Your task to perform on an android device: Open network settings Image 0: 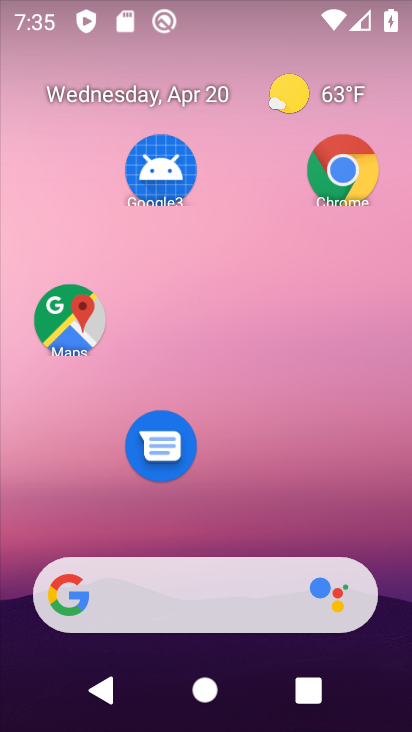
Step 0: drag from (247, 503) to (212, 49)
Your task to perform on an android device: Open network settings Image 1: 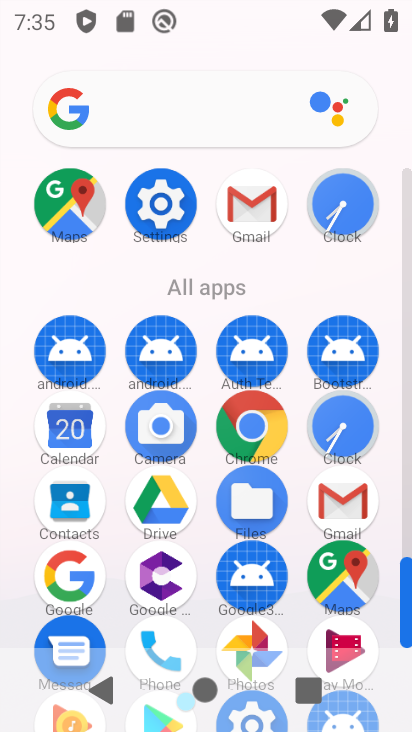
Step 1: click (158, 213)
Your task to perform on an android device: Open network settings Image 2: 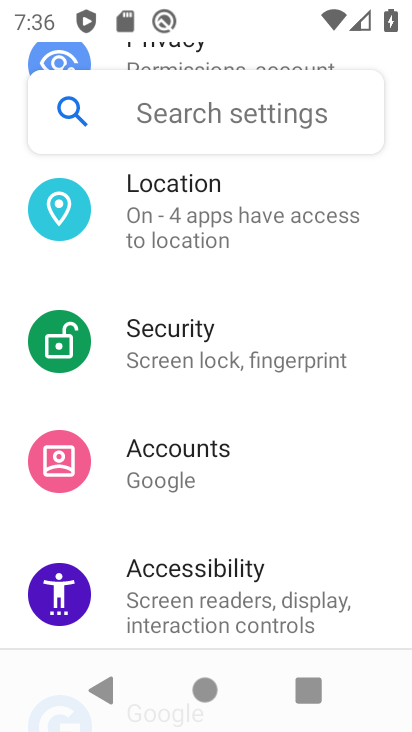
Step 2: drag from (257, 266) to (351, 730)
Your task to perform on an android device: Open network settings Image 3: 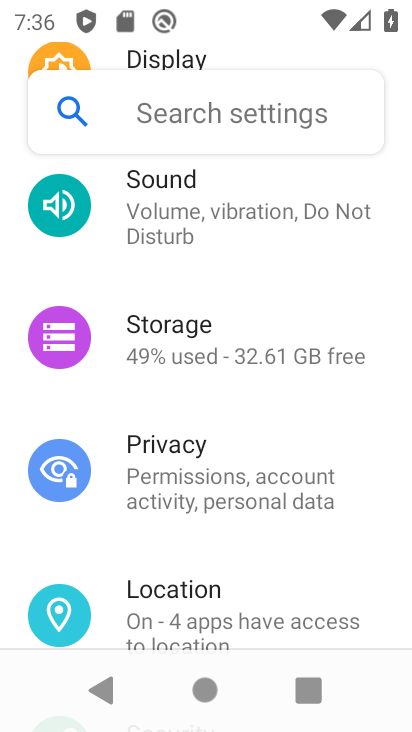
Step 3: drag from (239, 288) to (227, 728)
Your task to perform on an android device: Open network settings Image 4: 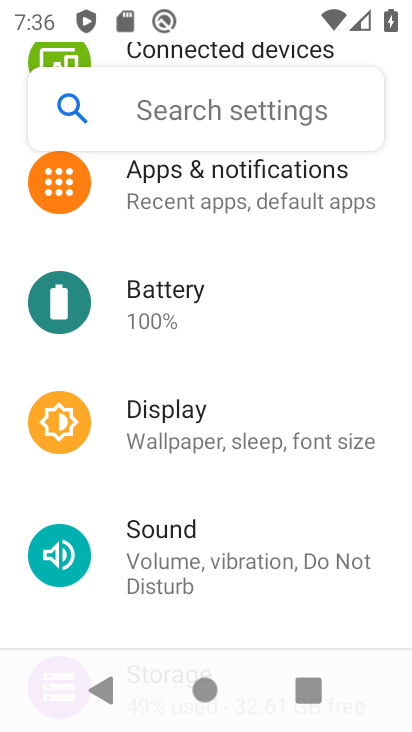
Step 4: drag from (192, 252) to (193, 675)
Your task to perform on an android device: Open network settings Image 5: 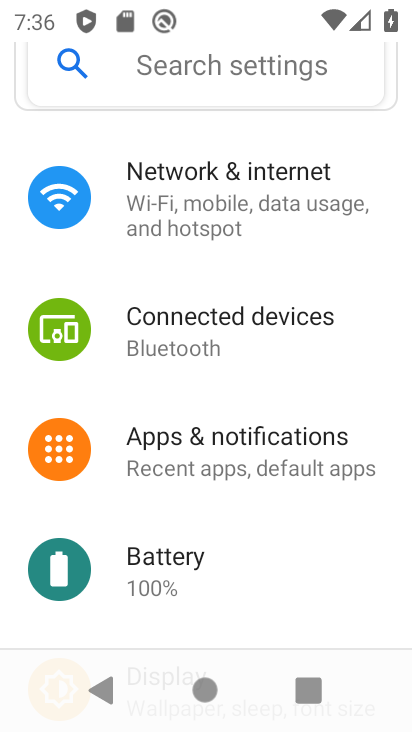
Step 5: click (200, 176)
Your task to perform on an android device: Open network settings Image 6: 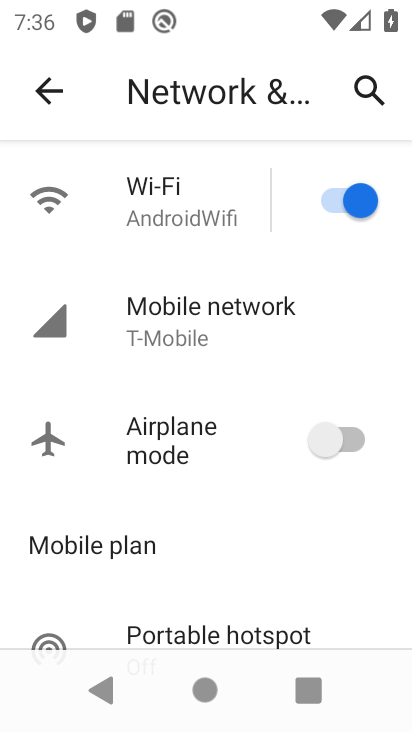
Step 6: click (227, 306)
Your task to perform on an android device: Open network settings Image 7: 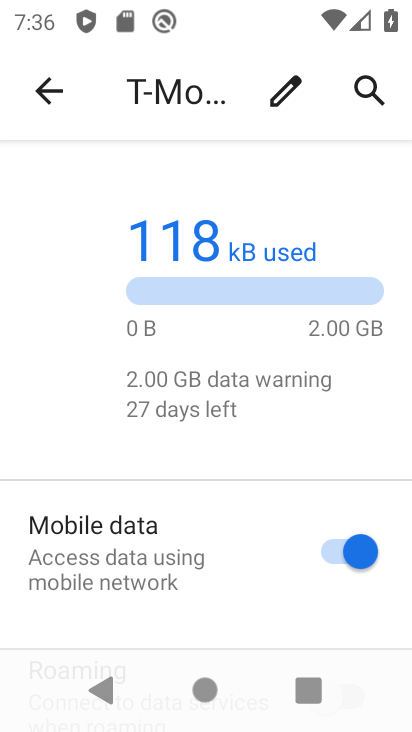
Step 7: task complete